Your task to perform on an android device: Check the news Image 0: 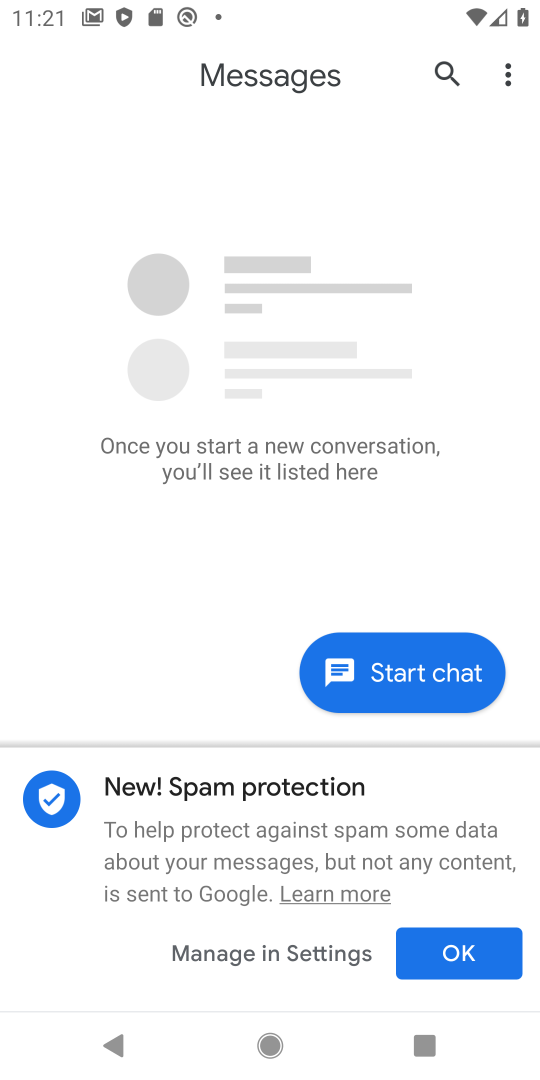
Step 0: press home button
Your task to perform on an android device: Check the news Image 1: 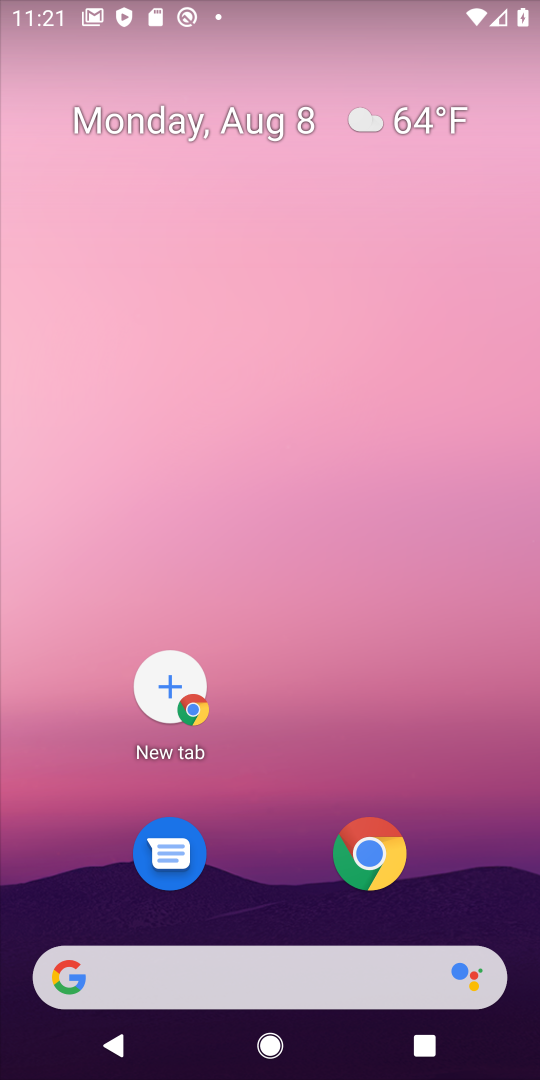
Step 1: click (248, 971)
Your task to perform on an android device: Check the news Image 2: 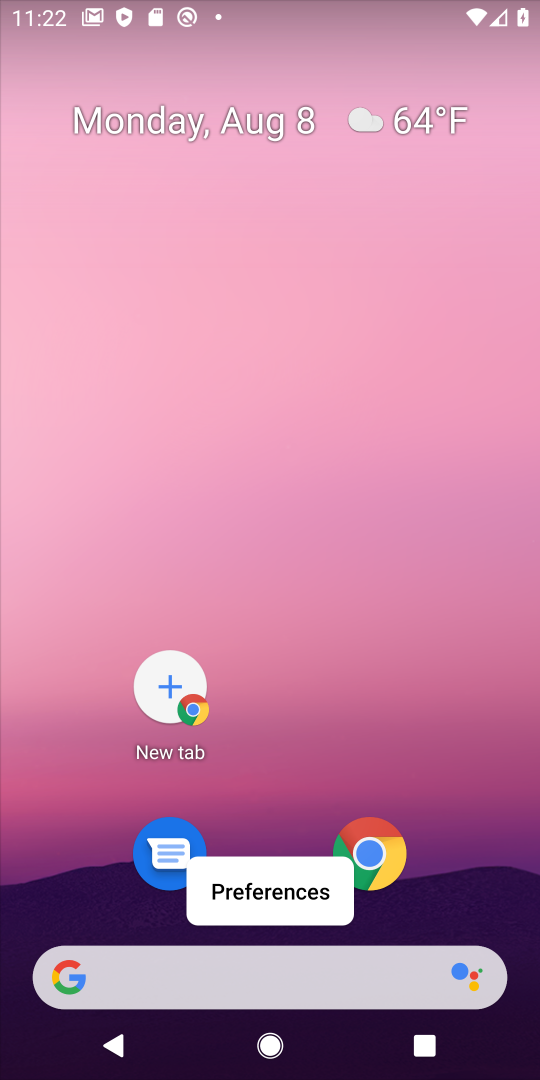
Step 2: click (245, 973)
Your task to perform on an android device: Check the news Image 3: 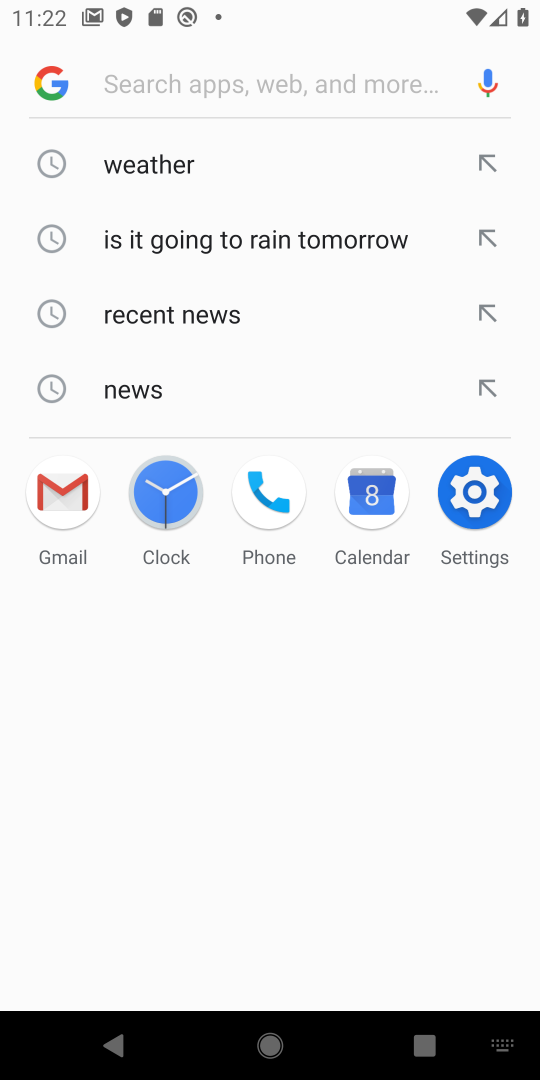
Step 3: click (152, 387)
Your task to perform on an android device: Check the news Image 4: 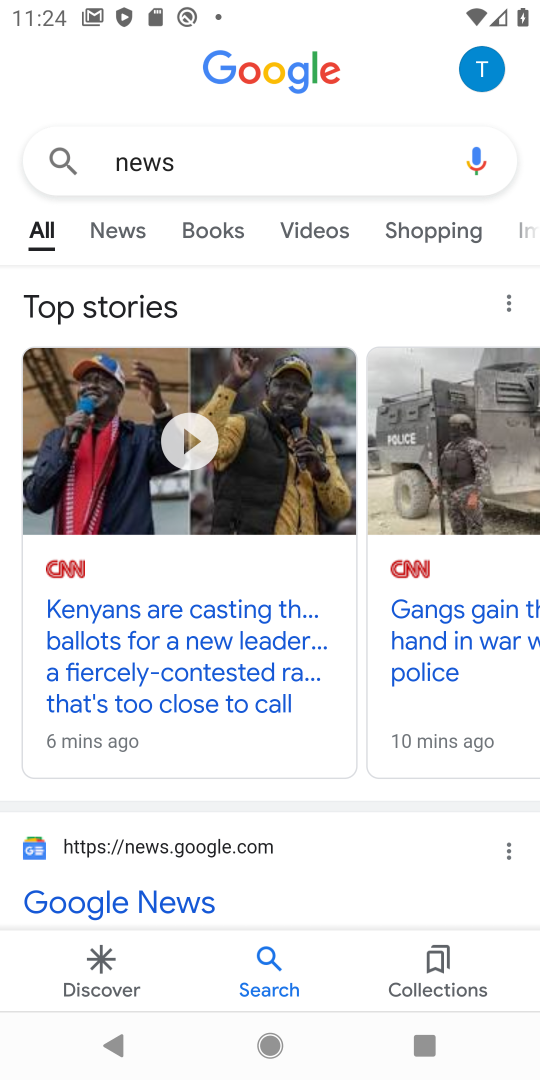
Step 4: task complete